Your task to perform on an android device: Go to Reddit.com Image 0: 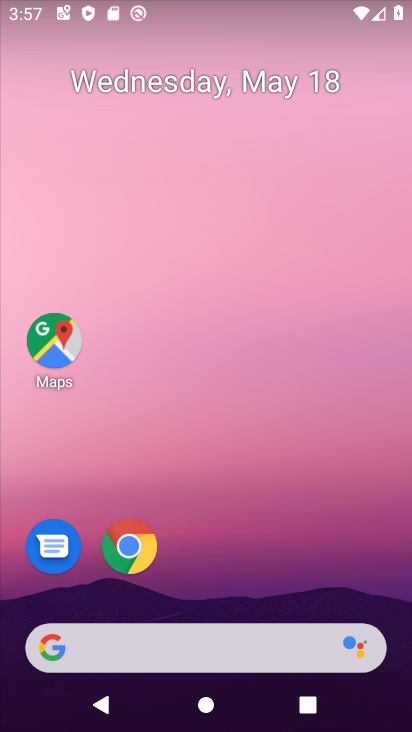
Step 0: drag from (226, 590) to (306, 63)
Your task to perform on an android device: Go to Reddit.com Image 1: 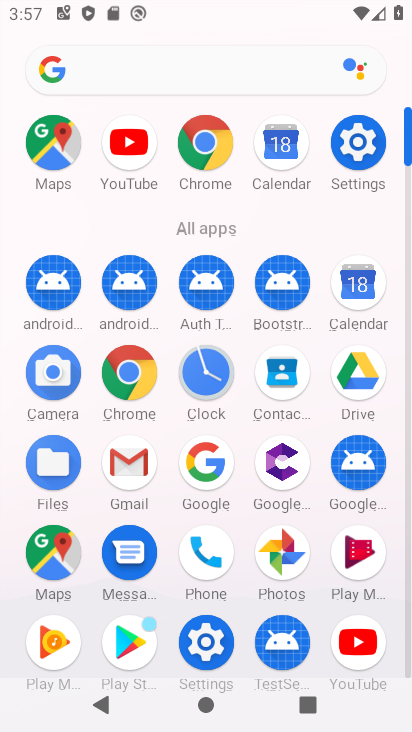
Step 1: click (206, 167)
Your task to perform on an android device: Go to Reddit.com Image 2: 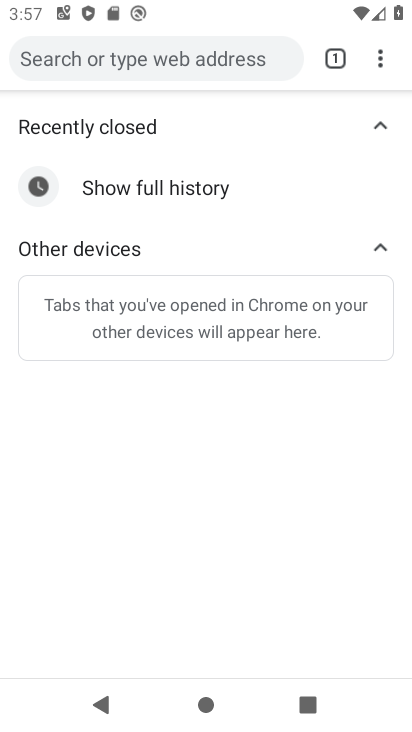
Step 2: click (139, 64)
Your task to perform on an android device: Go to Reddit.com Image 3: 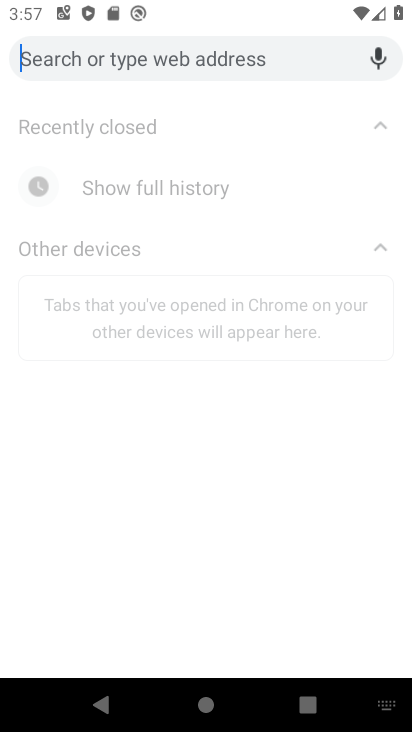
Step 3: type "Reddit.com"
Your task to perform on an android device: Go to Reddit.com Image 4: 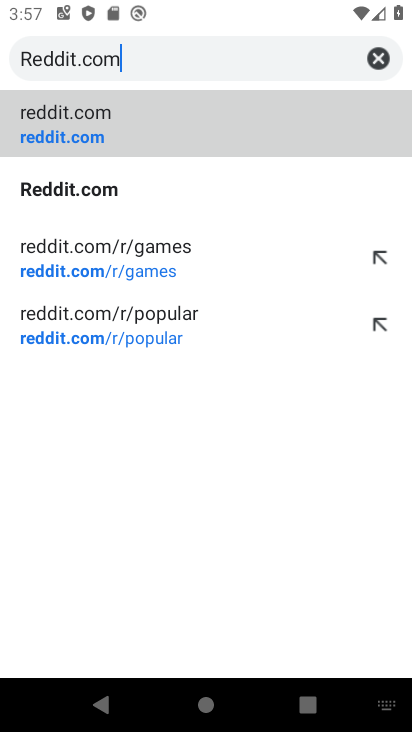
Step 4: click (105, 133)
Your task to perform on an android device: Go to Reddit.com Image 5: 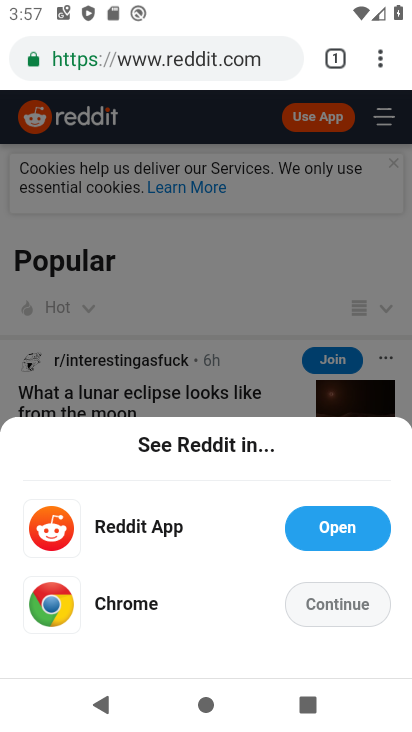
Step 5: task complete